Your task to perform on an android device: Open display settings Image 0: 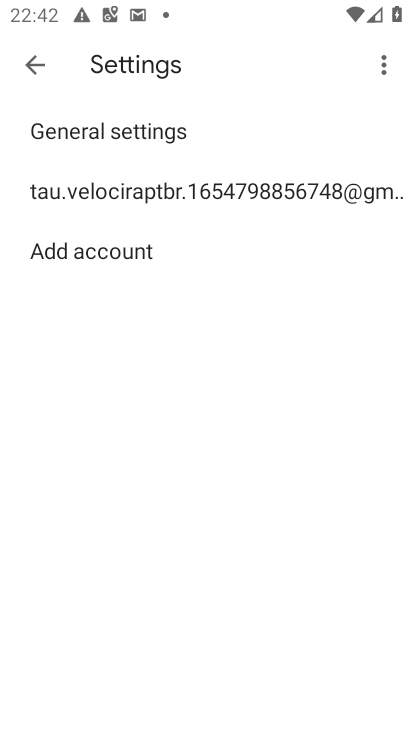
Step 0: press home button
Your task to perform on an android device: Open display settings Image 1: 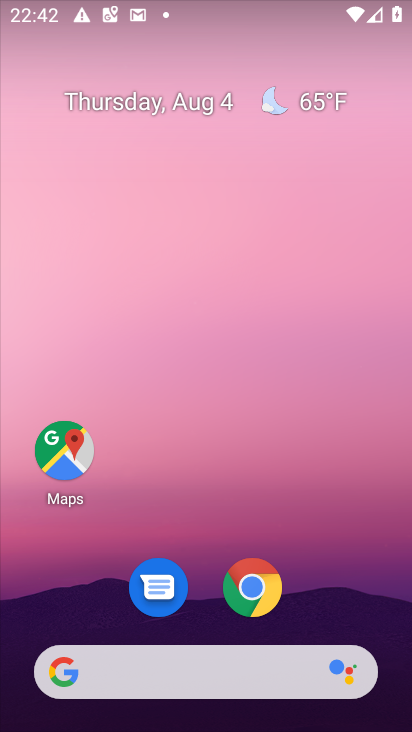
Step 1: drag from (231, 629) to (239, 390)
Your task to perform on an android device: Open display settings Image 2: 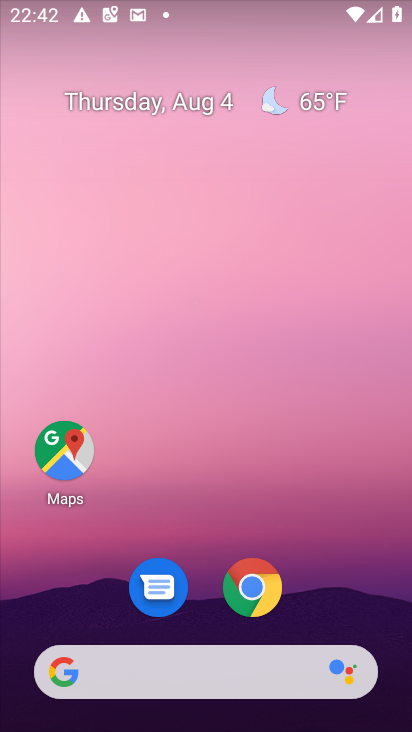
Step 2: drag from (188, 587) to (196, 64)
Your task to perform on an android device: Open display settings Image 3: 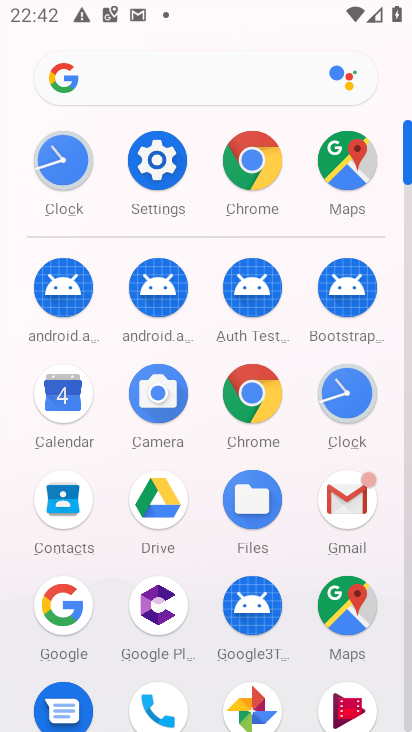
Step 3: click (158, 163)
Your task to perform on an android device: Open display settings Image 4: 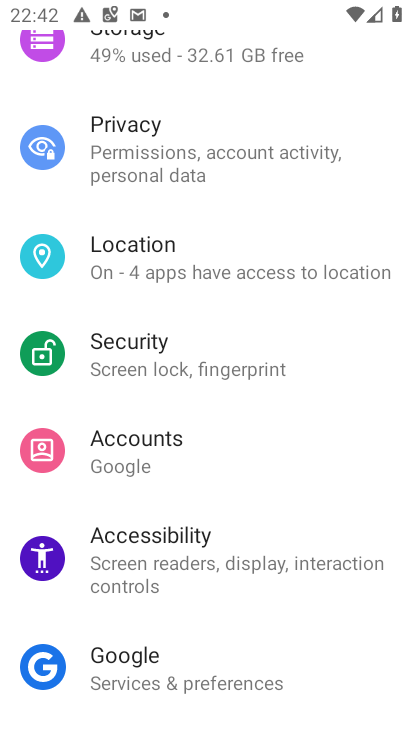
Step 4: drag from (216, 192) to (184, 621)
Your task to perform on an android device: Open display settings Image 5: 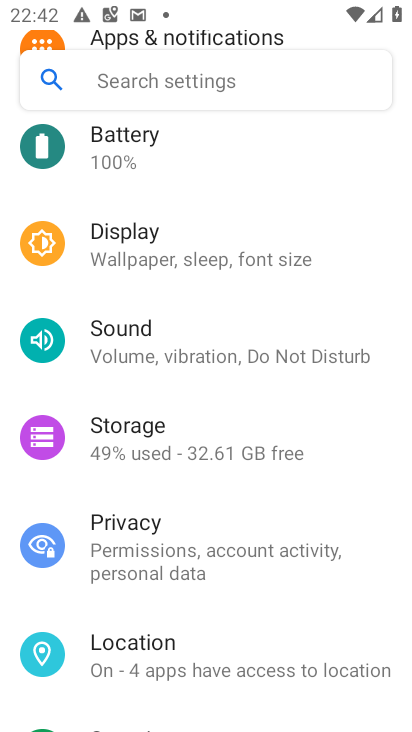
Step 5: click (213, 252)
Your task to perform on an android device: Open display settings Image 6: 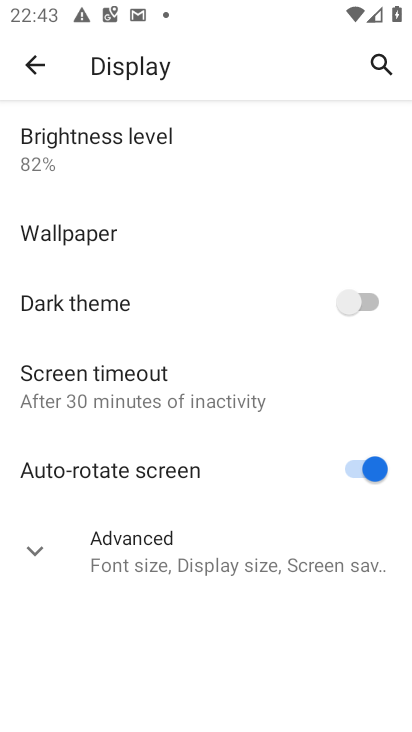
Step 6: task complete